Your task to perform on an android device: check out phone information Image 0: 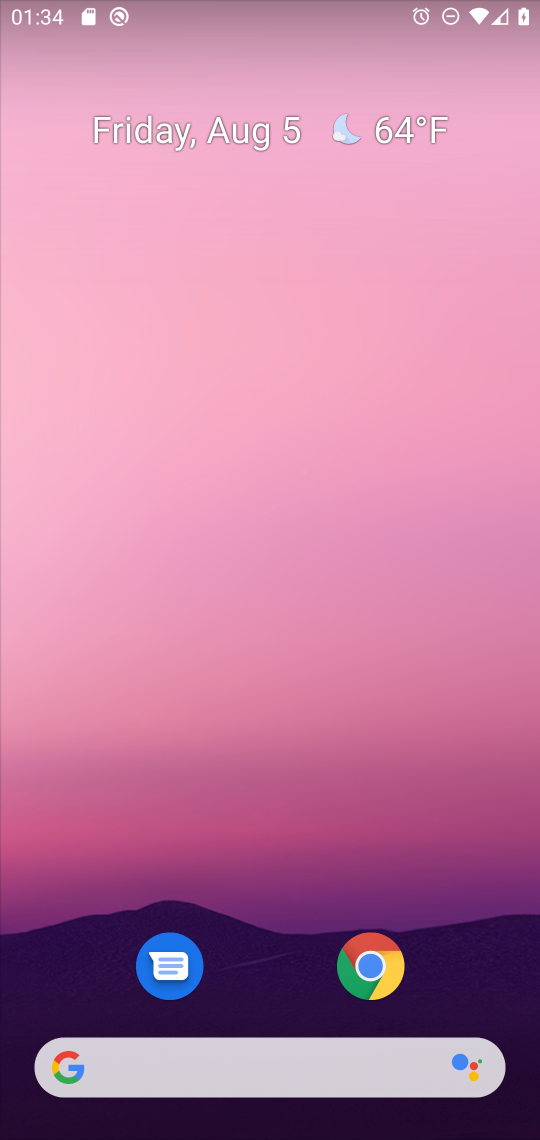
Step 0: drag from (280, 773) to (284, 0)
Your task to perform on an android device: check out phone information Image 1: 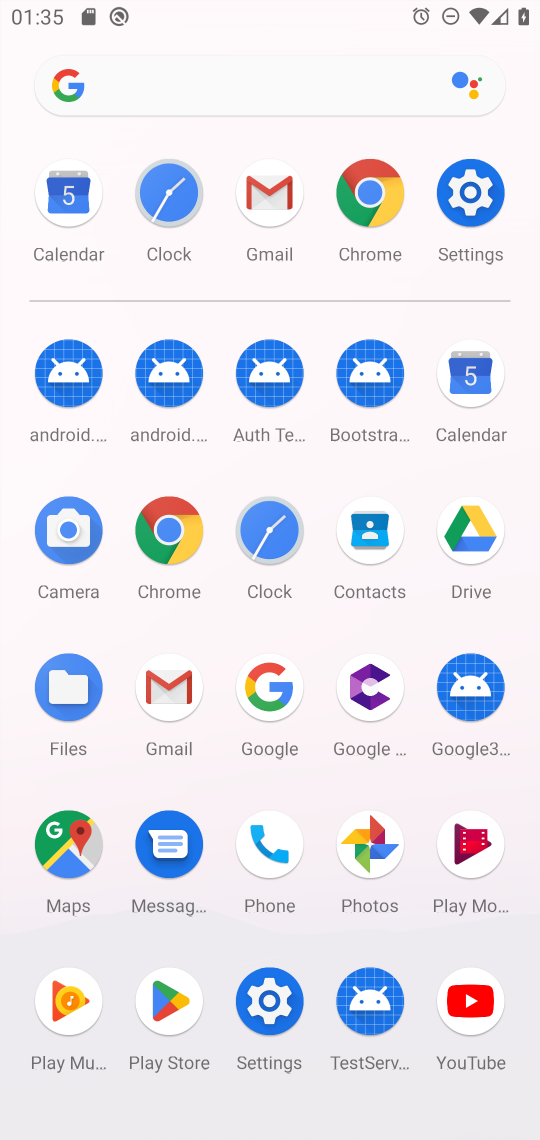
Step 1: click (285, 837)
Your task to perform on an android device: check out phone information Image 2: 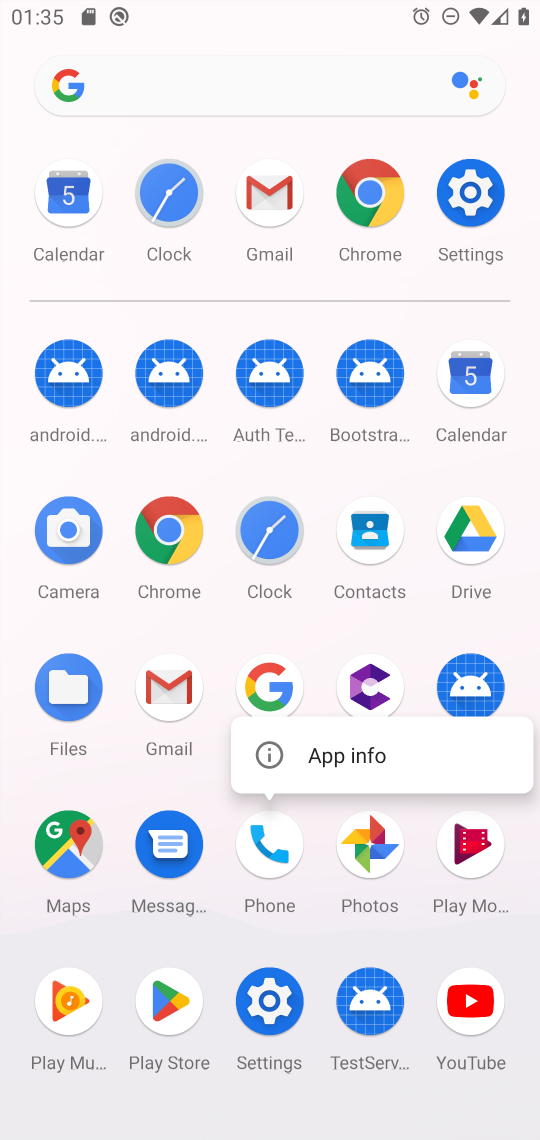
Step 2: click (270, 828)
Your task to perform on an android device: check out phone information Image 3: 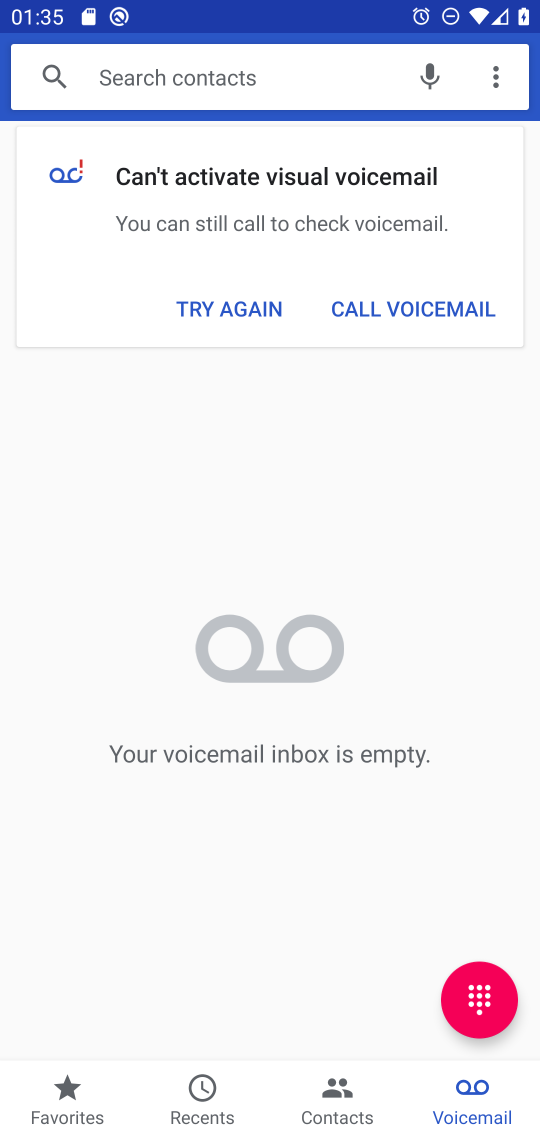
Step 3: click (490, 60)
Your task to perform on an android device: check out phone information Image 4: 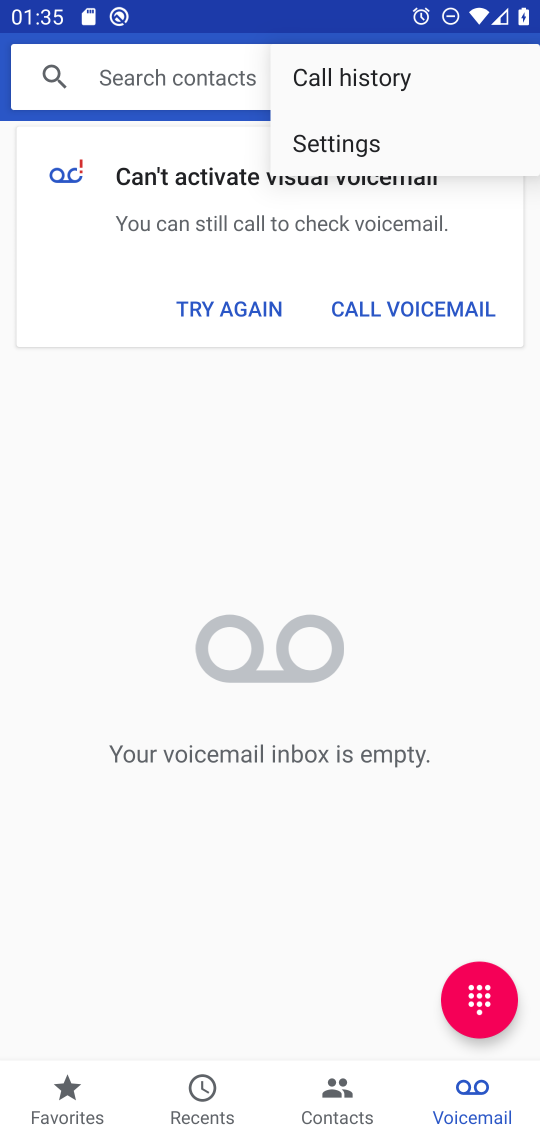
Step 4: click (422, 145)
Your task to perform on an android device: check out phone information Image 5: 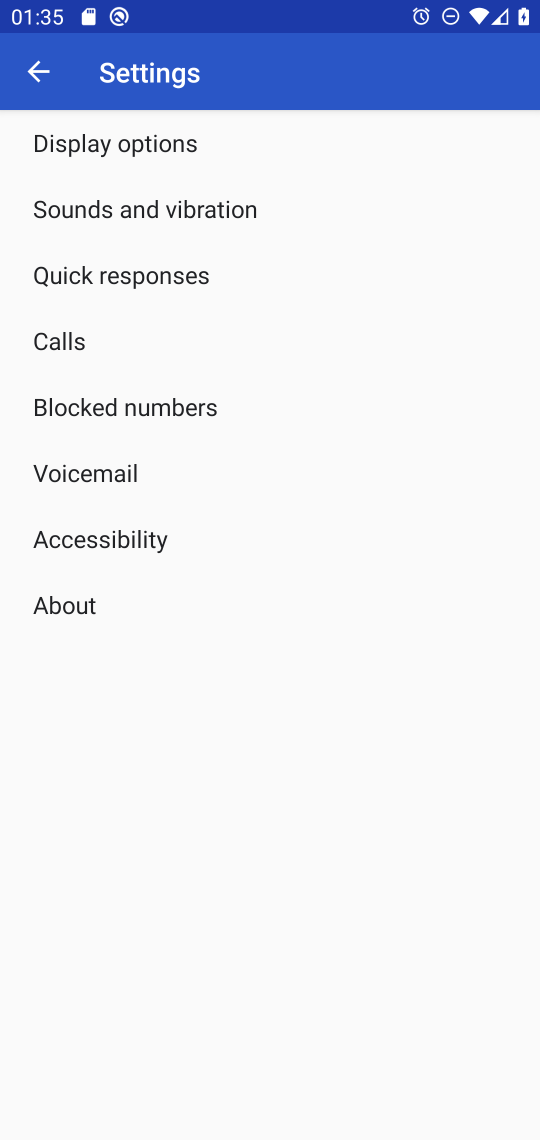
Step 5: click (87, 600)
Your task to perform on an android device: check out phone information Image 6: 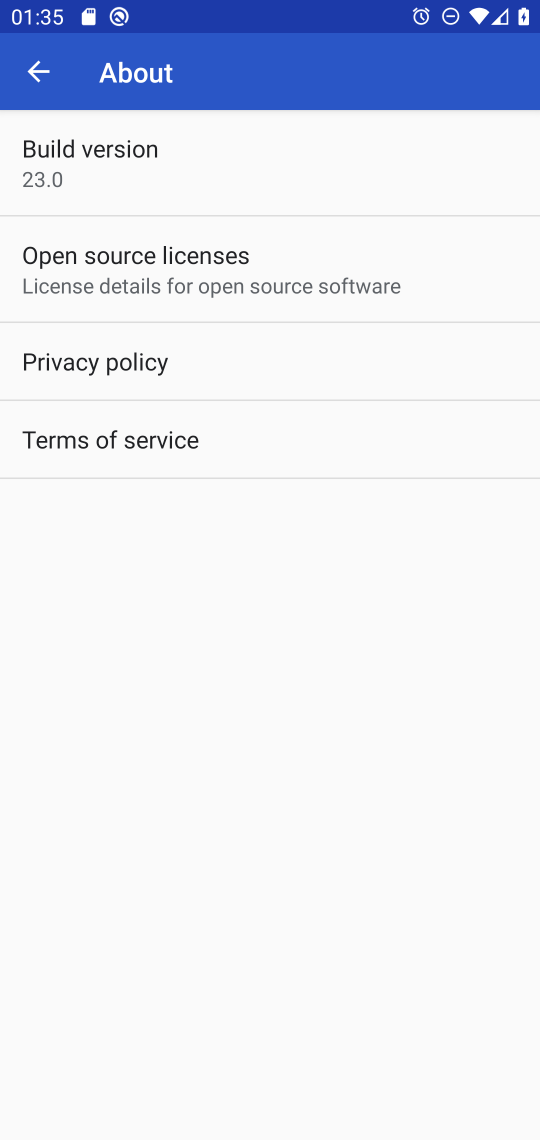
Step 6: task complete